Your task to perform on an android device: open app "Google Chrome" Image 0: 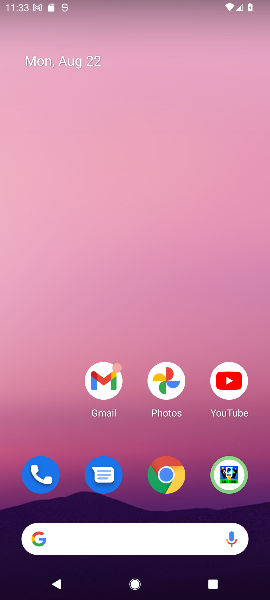
Step 0: click (114, 488)
Your task to perform on an android device: open app "Google Chrome" Image 1: 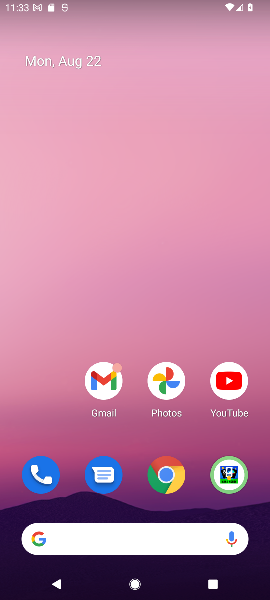
Step 1: click (163, 478)
Your task to perform on an android device: open app "Google Chrome" Image 2: 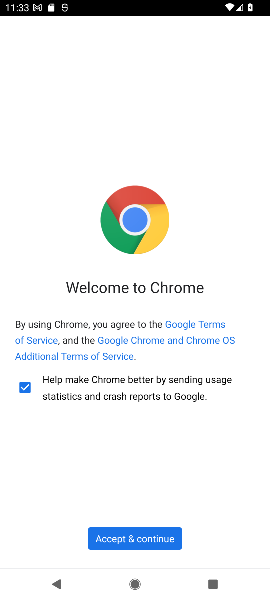
Step 2: click (113, 531)
Your task to perform on an android device: open app "Google Chrome" Image 3: 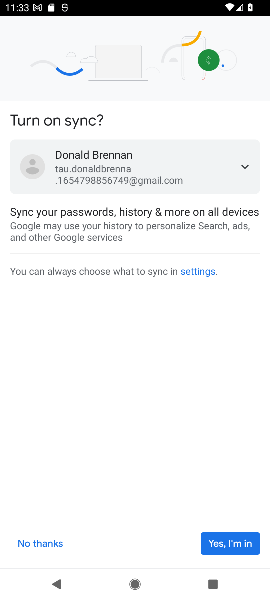
Step 3: click (232, 545)
Your task to perform on an android device: open app "Google Chrome" Image 4: 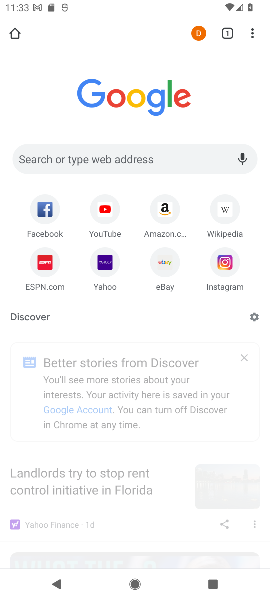
Step 4: task complete